Your task to perform on an android device: Go to accessibility settings Image 0: 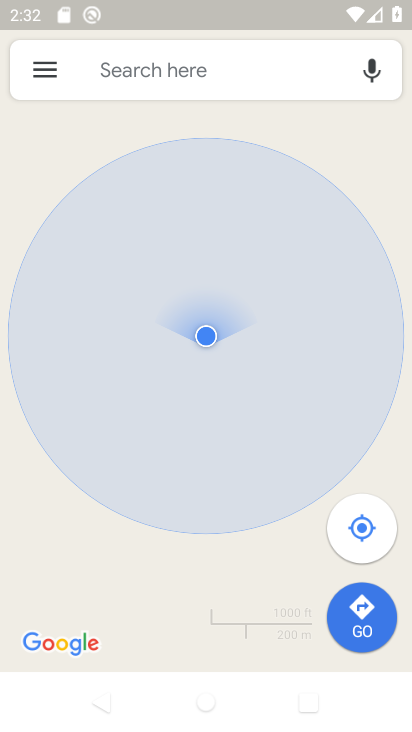
Step 0: press home button
Your task to perform on an android device: Go to accessibility settings Image 1: 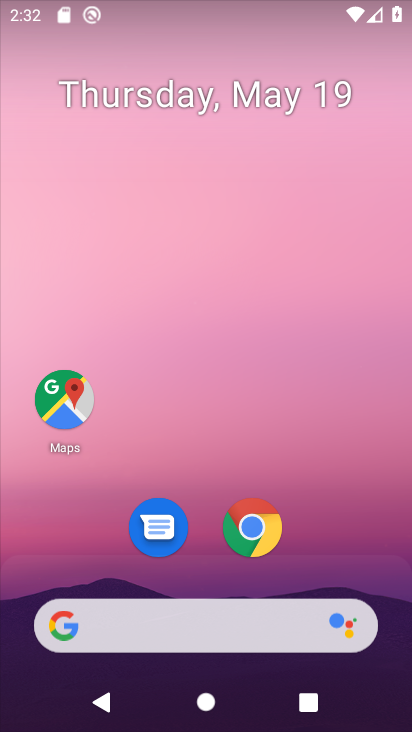
Step 1: drag from (353, 560) to (224, 9)
Your task to perform on an android device: Go to accessibility settings Image 2: 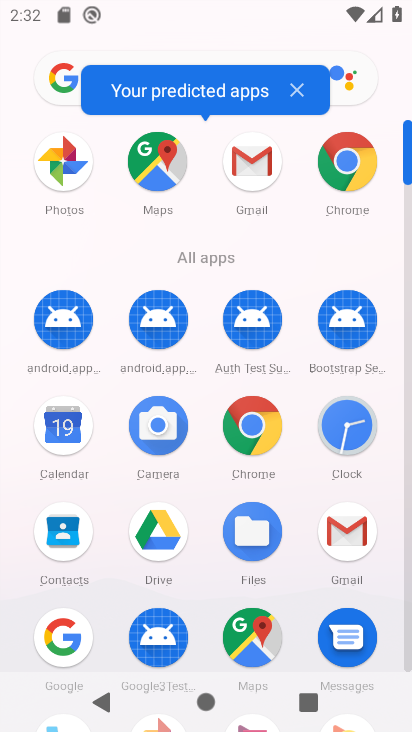
Step 2: drag from (311, 627) to (259, 181)
Your task to perform on an android device: Go to accessibility settings Image 3: 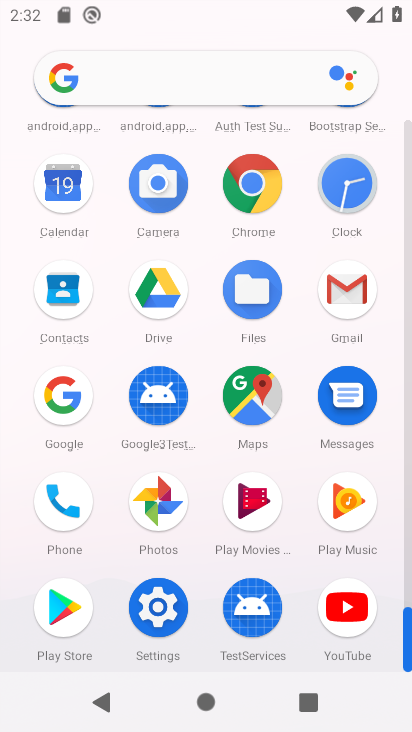
Step 3: click (154, 617)
Your task to perform on an android device: Go to accessibility settings Image 4: 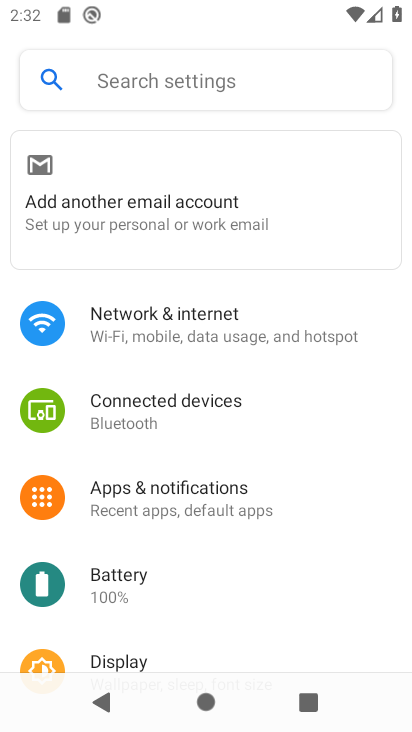
Step 4: drag from (239, 514) to (226, 81)
Your task to perform on an android device: Go to accessibility settings Image 5: 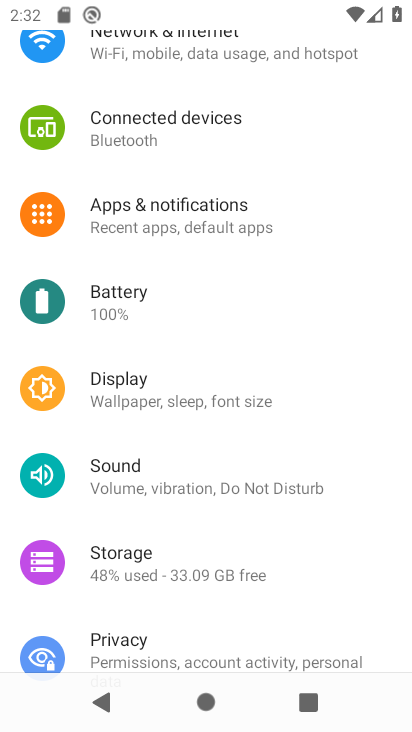
Step 5: drag from (249, 559) to (222, 78)
Your task to perform on an android device: Go to accessibility settings Image 6: 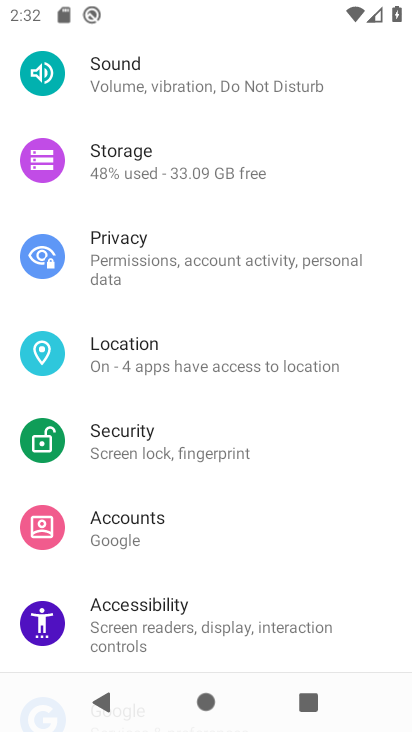
Step 6: click (199, 599)
Your task to perform on an android device: Go to accessibility settings Image 7: 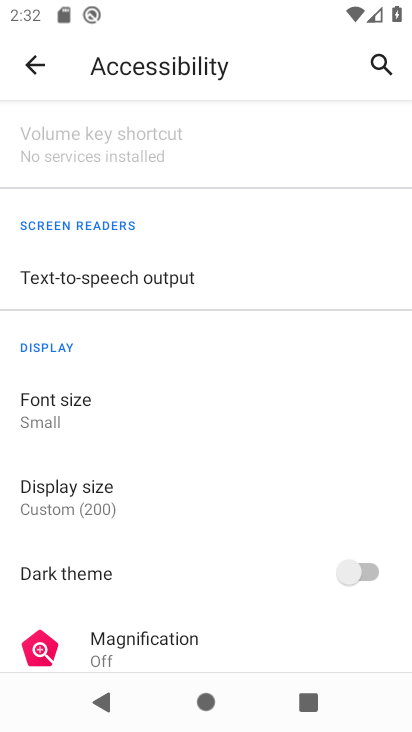
Step 7: task complete